Your task to perform on an android device: change notifications settings Image 0: 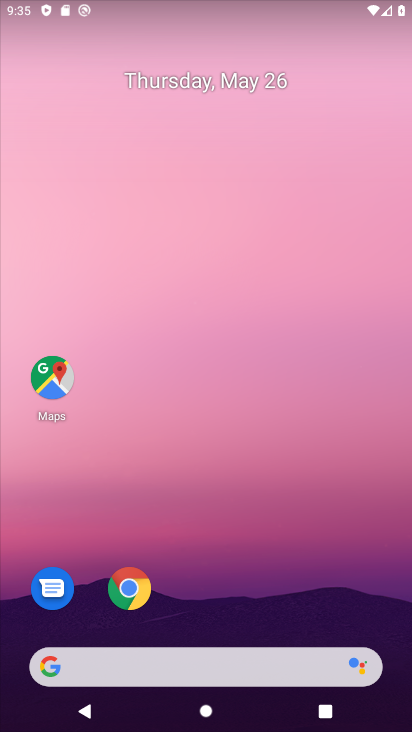
Step 0: drag from (239, 725) to (209, 84)
Your task to perform on an android device: change notifications settings Image 1: 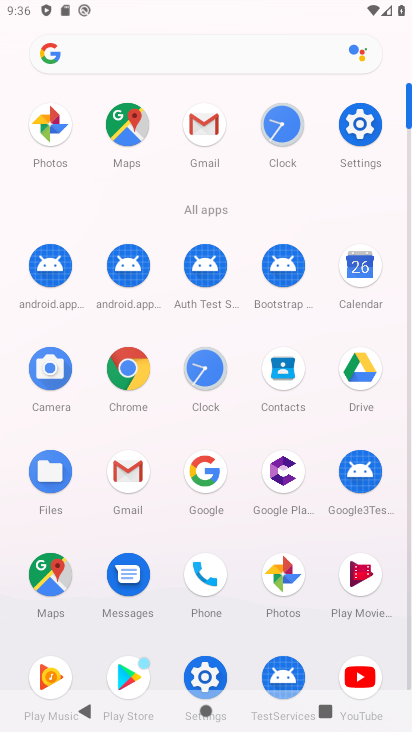
Step 1: click (369, 129)
Your task to perform on an android device: change notifications settings Image 2: 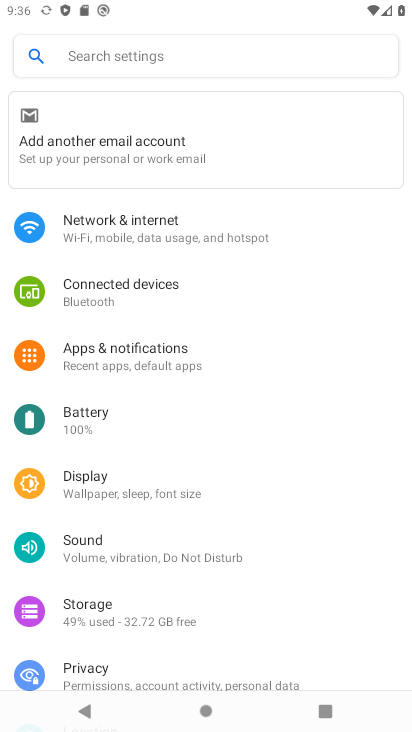
Step 2: click (131, 346)
Your task to perform on an android device: change notifications settings Image 3: 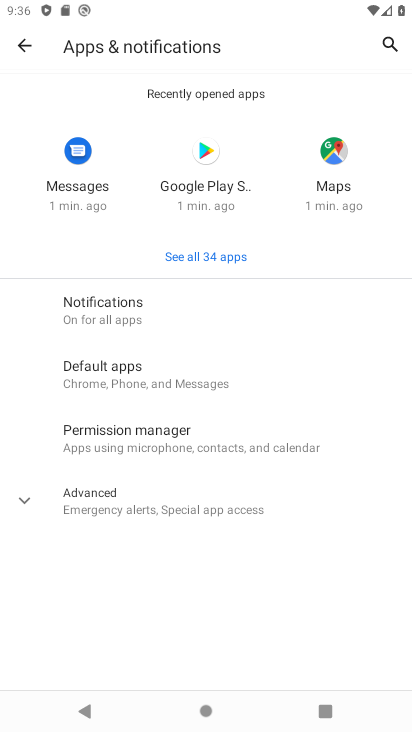
Step 3: click (114, 317)
Your task to perform on an android device: change notifications settings Image 4: 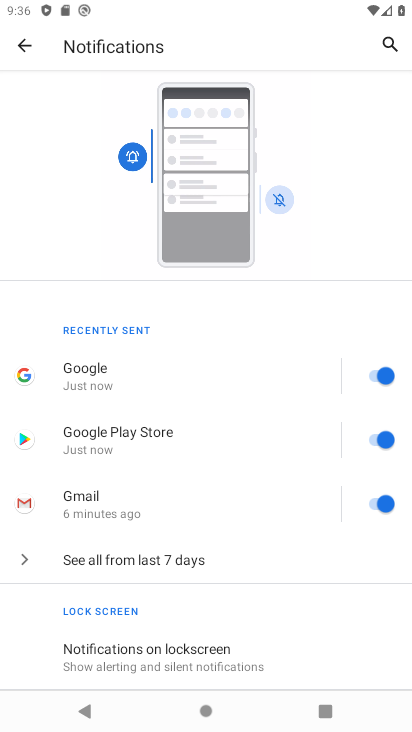
Step 4: drag from (265, 674) to (238, 290)
Your task to perform on an android device: change notifications settings Image 5: 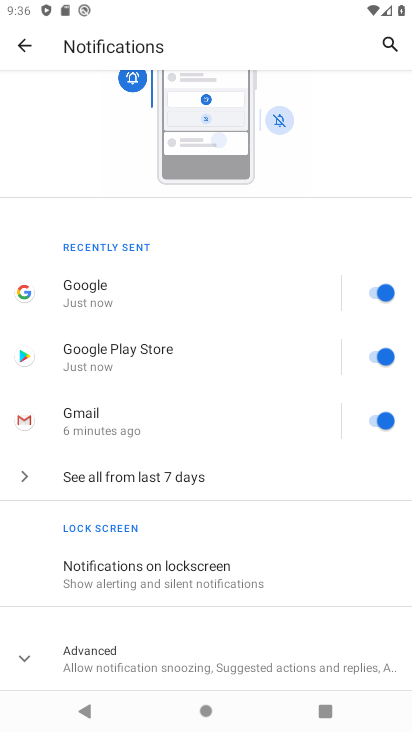
Step 5: click (141, 658)
Your task to perform on an android device: change notifications settings Image 6: 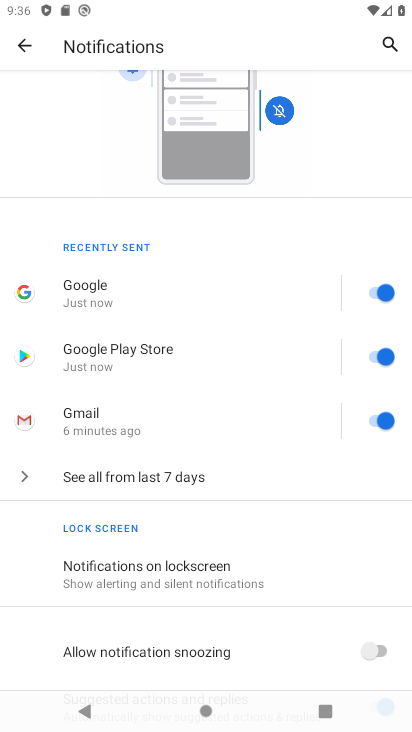
Step 6: click (385, 648)
Your task to perform on an android device: change notifications settings Image 7: 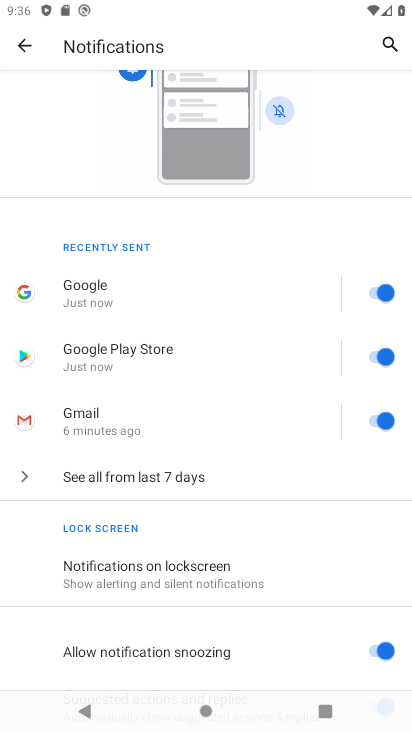
Step 7: task complete